Your task to perform on an android device: turn on the 24-hour format for clock Image 0: 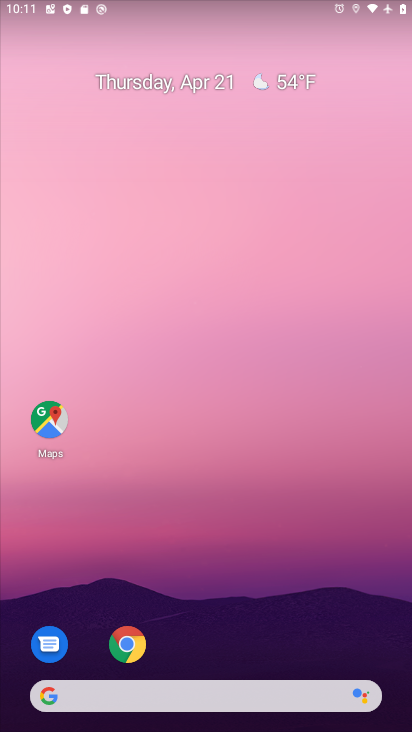
Step 0: drag from (219, 487) to (153, 83)
Your task to perform on an android device: turn on the 24-hour format for clock Image 1: 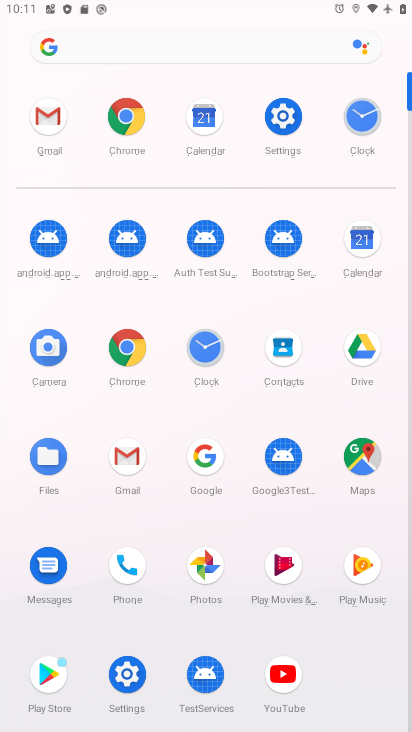
Step 1: click (369, 113)
Your task to perform on an android device: turn on the 24-hour format for clock Image 2: 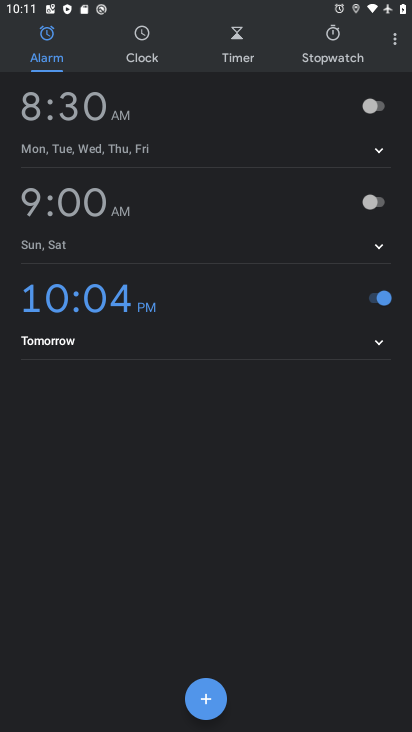
Step 2: click (394, 41)
Your task to perform on an android device: turn on the 24-hour format for clock Image 3: 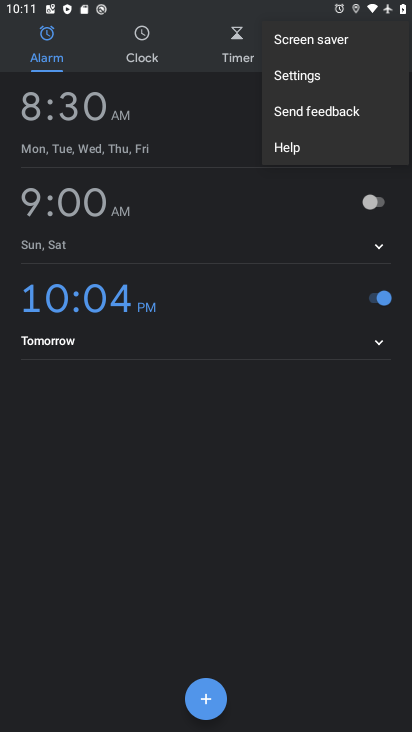
Step 3: click (310, 77)
Your task to perform on an android device: turn on the 24-hour format for clock Image 4: 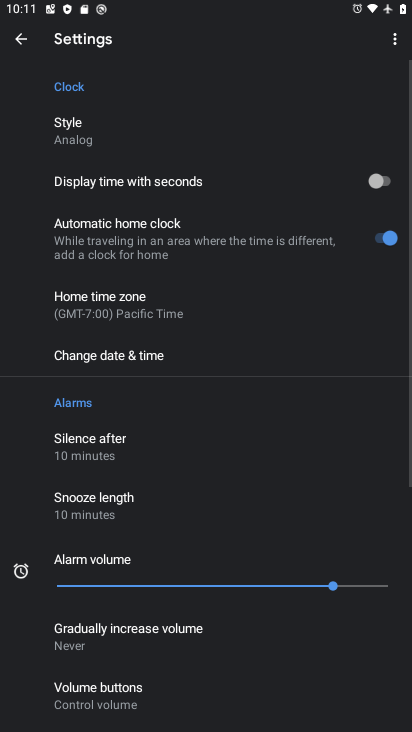
Step 4: click (103, 354)
Your task to perform on an android device: turn on the 24-hour format for clock Image 5: 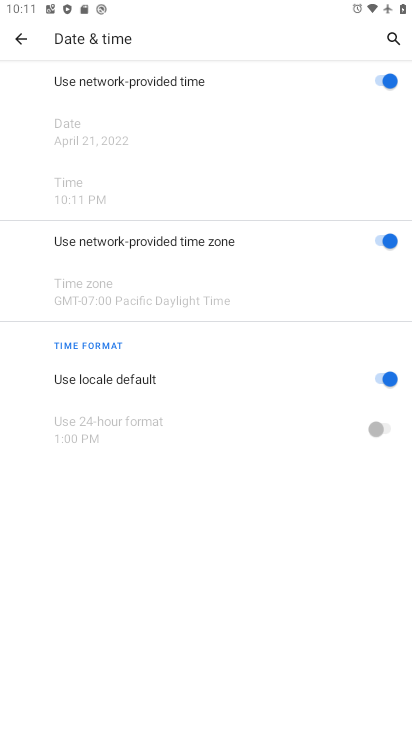
Step 5: click (386, 376)
Your task to perform on an android device: turn on the 24-hour format for clock Image 6: 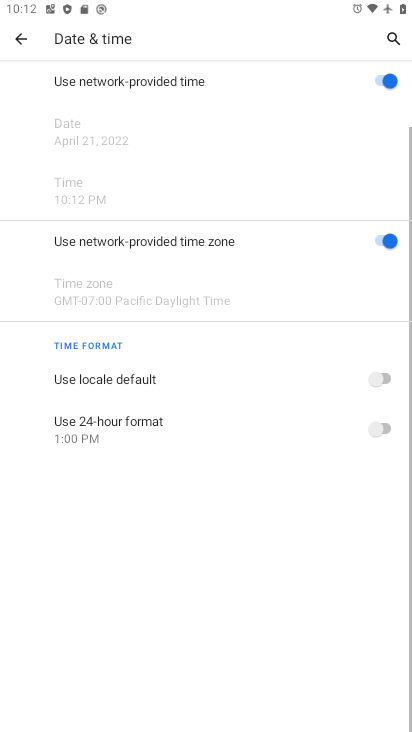
Step 6: click (381, 431)
Your task to perform on an android device: turn on the 24-hour format for clock Image 7: 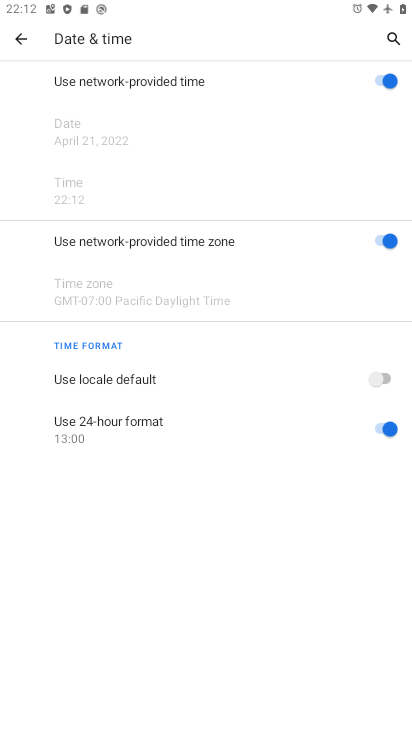
Step 7: task complete